Your task to perform on an android device: Set the phone to "Do not disturb". Image 0: 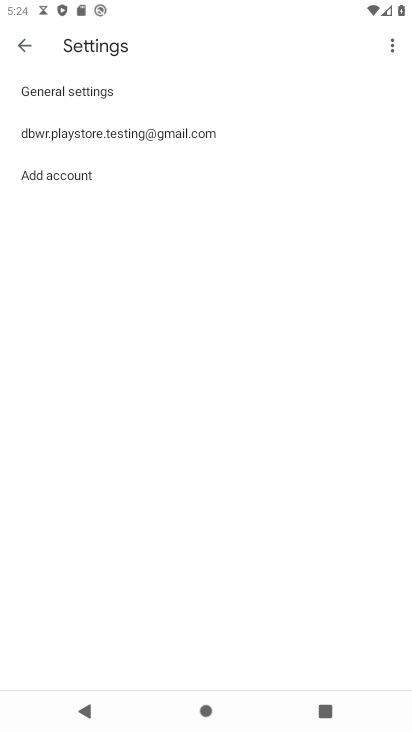
Step 0: press back button
Your task to perform on an android device: Set the phone to "Do not disturb". Image 1: 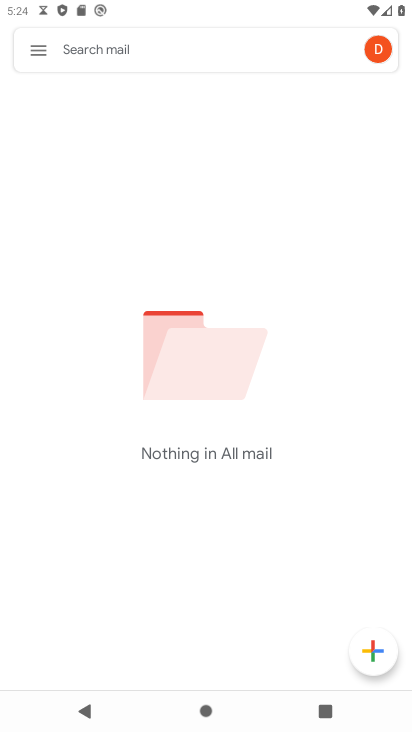
Step 1: press back button
Your task to perform on an android device: Set the phone to "Do not disturb". Image 2: 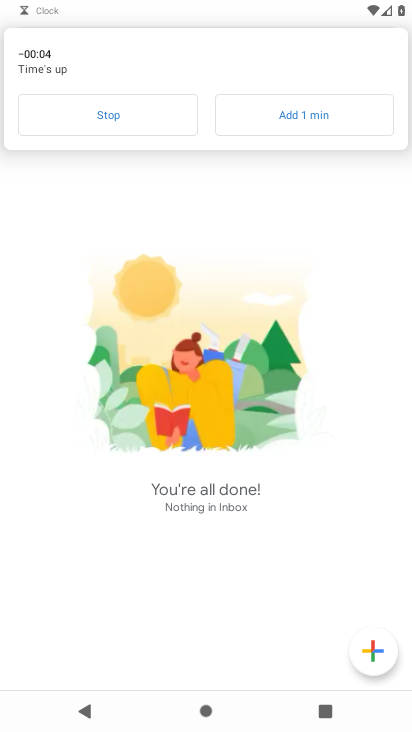
Step 2: click (99, 111)
Your task to perform on an android device: Set the phone to "Do not disturb". Image 3: 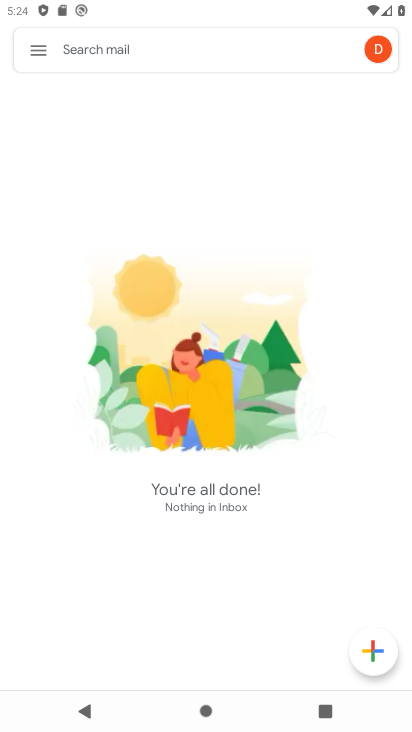
Step 3: press home button
Your task to perform on an android device: Set the phone to "Do not disturb". Image 4: 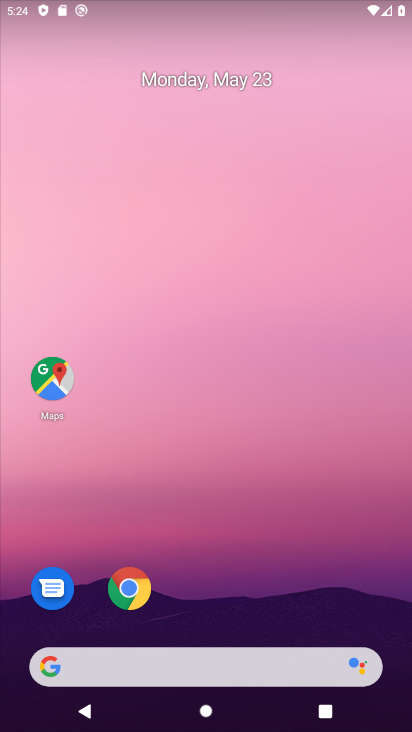
Step 4: drag from (236, 560) to (171, 9)
Your task to perform on an android device: Set the phone to "Do not disturb". Image 5: 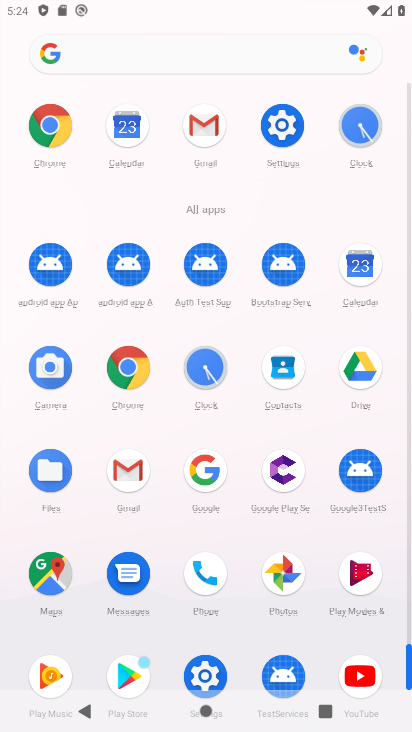
Step 5: drag from (12, 528) to (28, 183)
Your task to perform on an android device: Set the phone to "Do not disturb". Image 6: 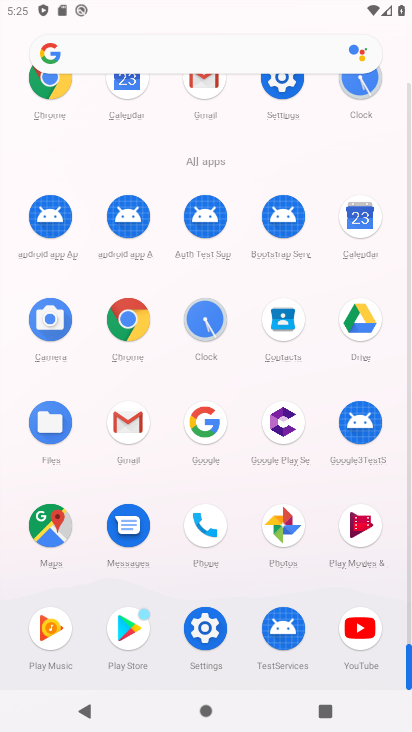
Step 6: drag from (11, 512) to (41, 147)
Your task to perform on an android device: Set the phone to "Do not disturb". Image 7: 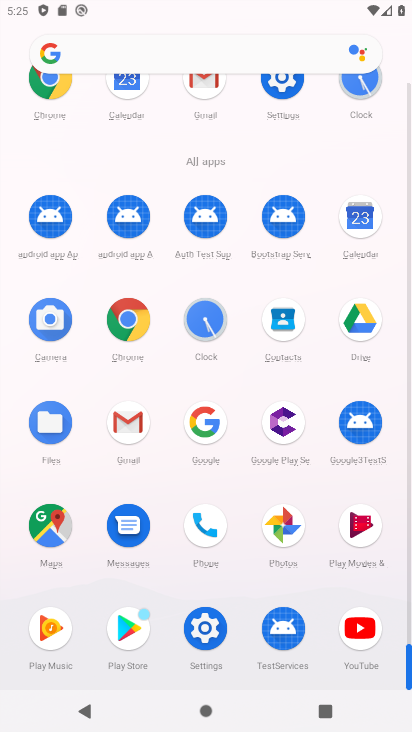
Step 7: click (204, 628)
Your task to perform on an android device: Set the phone to "Do not disturb". Image 8: 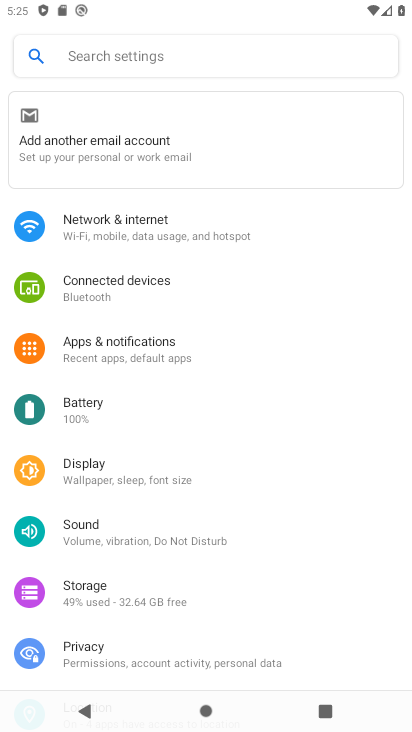
Step 8: click (118, 478)
Your task to perform on an android device: Set the phone to "Do not disturb". Image 9: 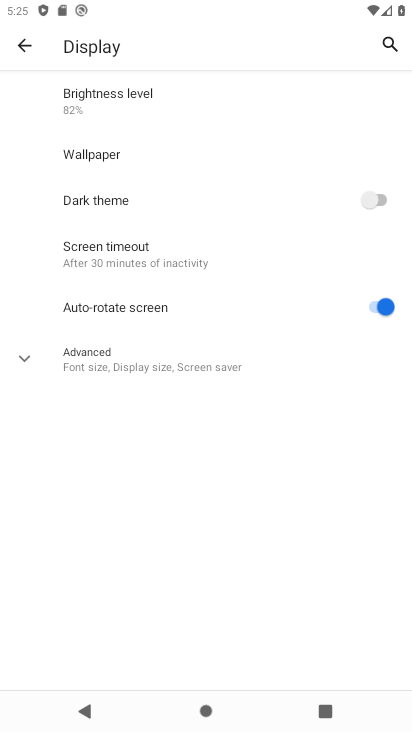
Step 9: click (50, 348)
Your task to perform on an android device: Set the phone to "Do not disturb". Image 10: 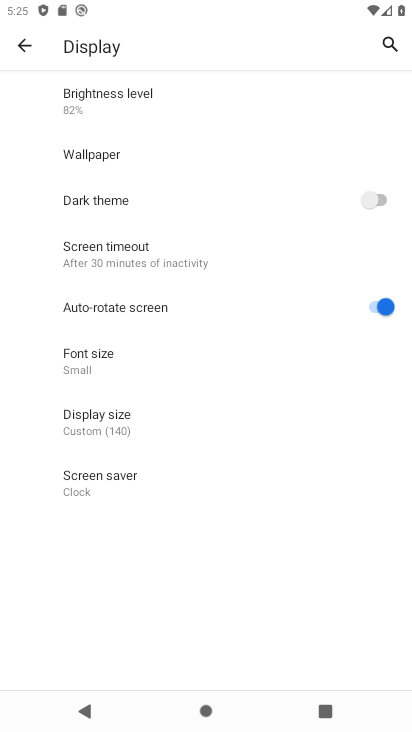
Step 10: click (31, 45)
Your task to perform on an android device: Set the phone to "Do not disturb". Image 11: 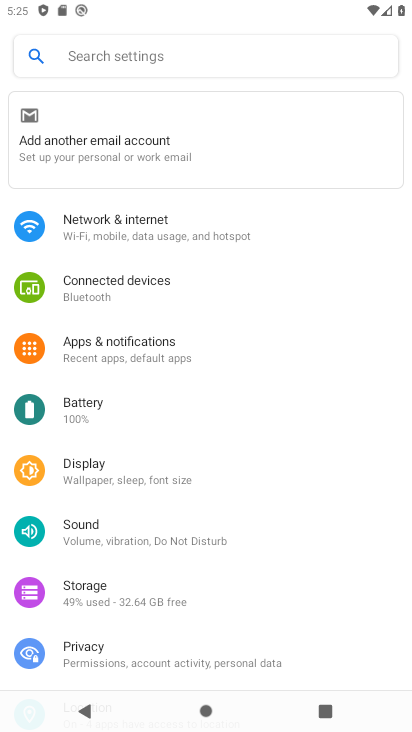
Step 11: click (187, 526)
Your task to perform on an android device: Set the phone to "Do not disturb". Image 12: 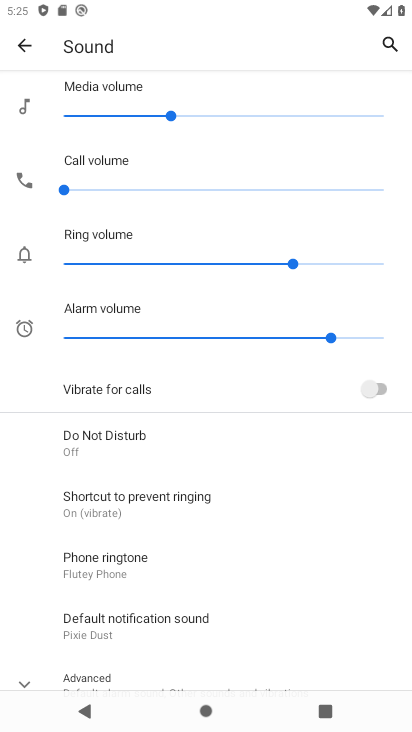
Step 12: drag from (259, 503) to (266, 98)
Your task to perform on an android device: Set the phone to "Do not disturb". Image 13: 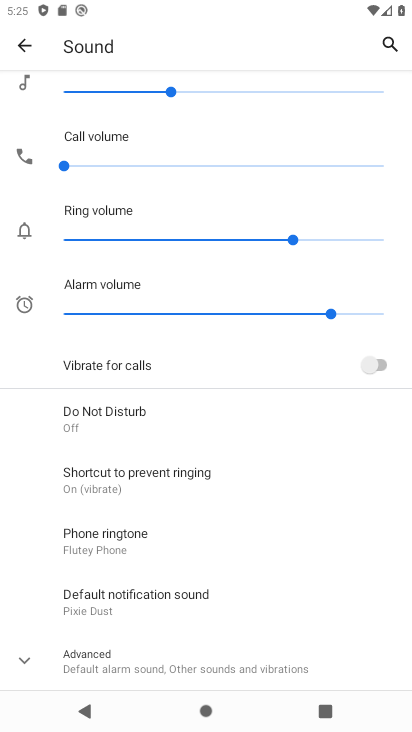
Step 13: click (13, 665)
Your task to perform on an android device: Set the phone to "Do not disturb". Image 14: 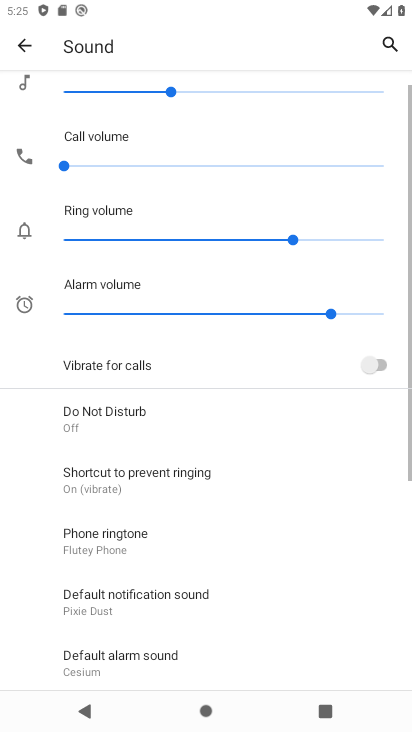
Step 14: task complete